Your task to perform on an android device: Open settings on Google Maps Image 0: 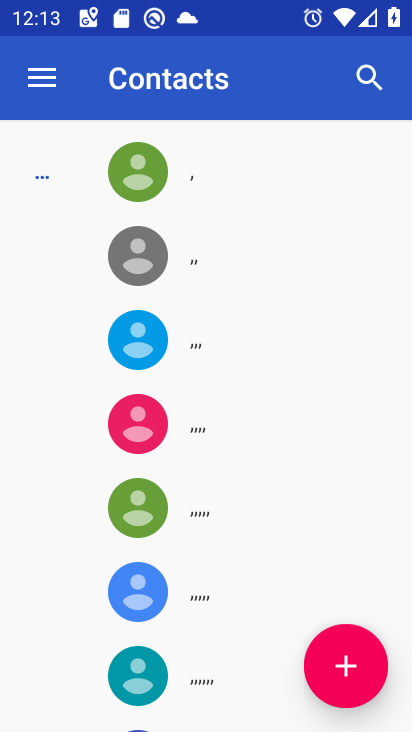
Step 0: press home button
Your task to perform on an android device: Open settings on Google Maps Image 1: 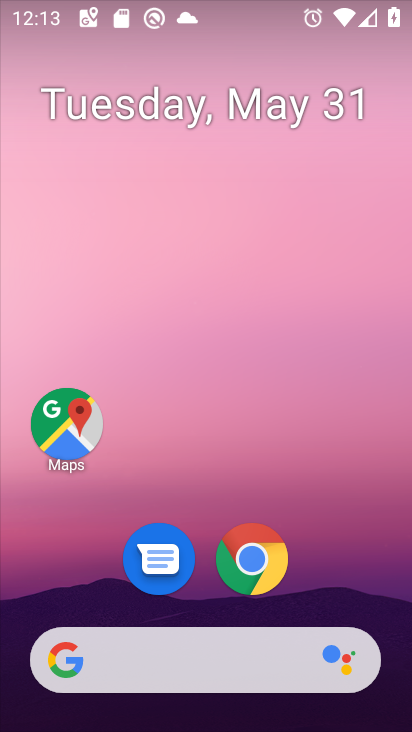
Step 1: click (71, 445)
Your task to perform on an android device: Open settings on Google Maps Image 2: 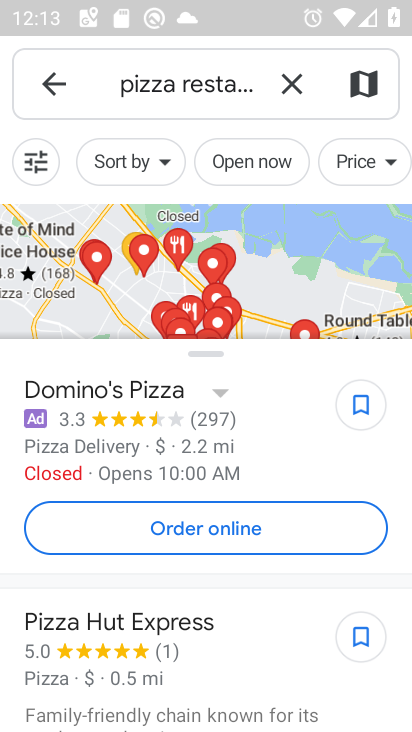
Step 2: click (62, 91)
Your task to perform on an android device: Open settings on Google Maps Image 3: 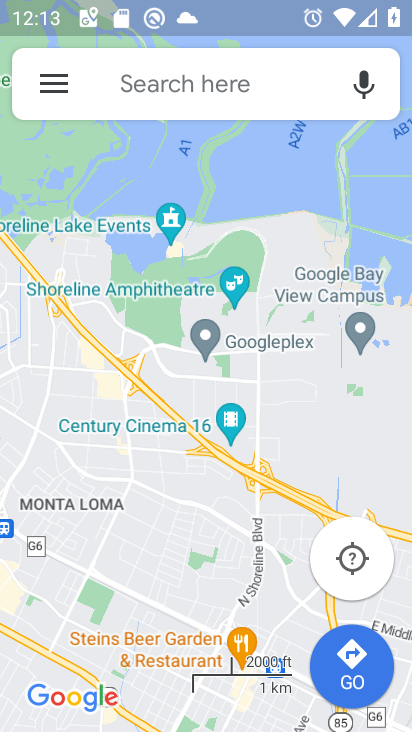
Step 3: click (62, 91)
Your task to perform on an android device: Open settings on Google Maps Image 4: 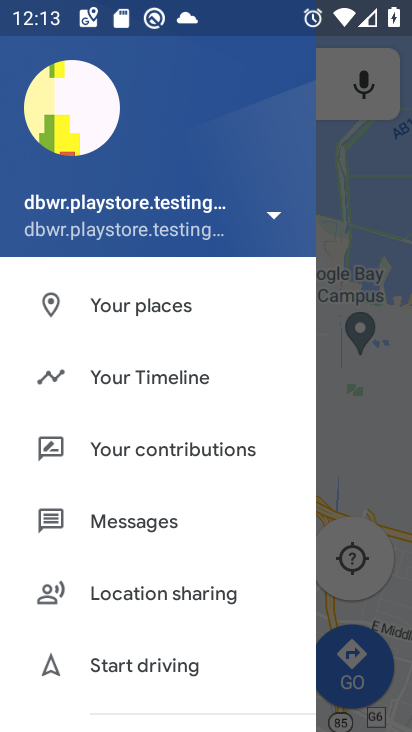
Step 4: drag from (205, 668) to (139, 280)
Your task to perform on an android device: Open settings on Google Maps Image 5: 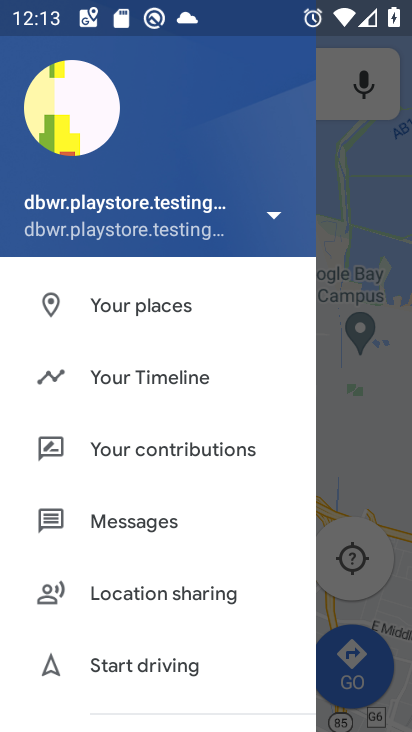
Step 5: drag from (148, 641) to (134, 105)
Your task to perform on an android device: Open settings on Google Maps Image 6: 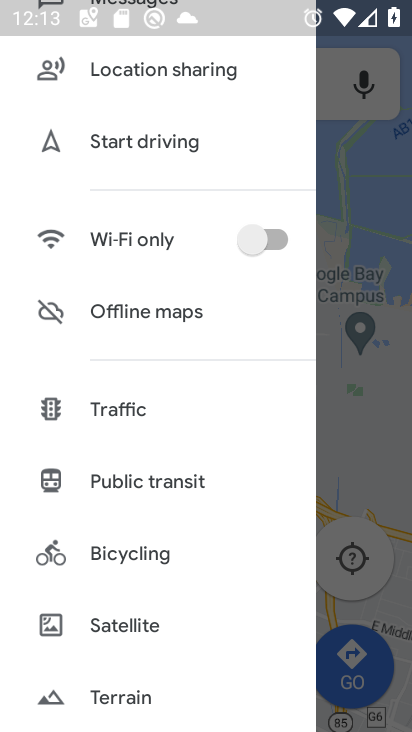
Step 6: drag from (165, 680) to (177, 93)
Your task to perform on an android device: Open settings on Google Maps Image 7: 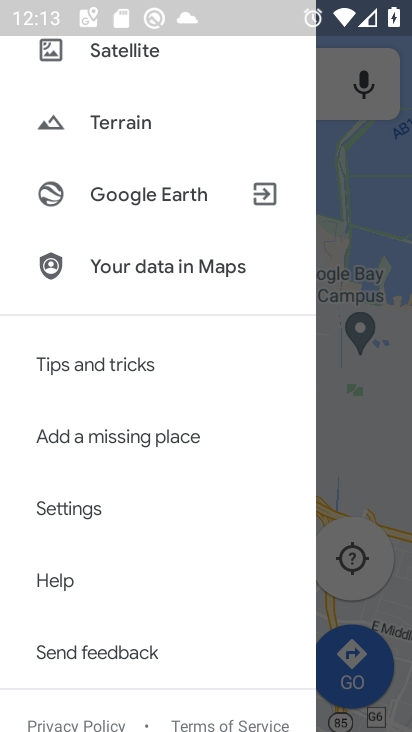
Step 7: click (143, 520)
Your task to perform on an android device: Open settings on Google Maps Image 8: 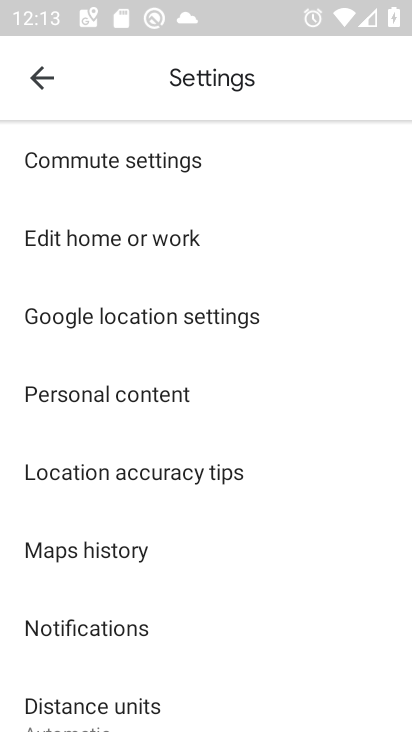
Step 8: task complete